Your task to perform on an android device: Open the web browser Image 0: 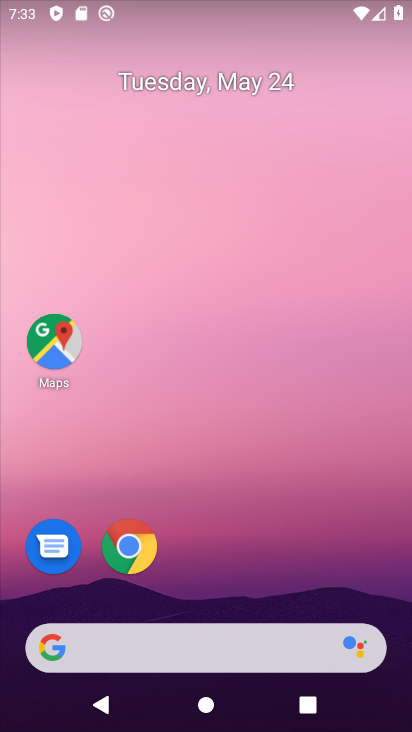
Step 0: click (119, 552)
Your task to perform on an android device: Open the web browser Image 1: 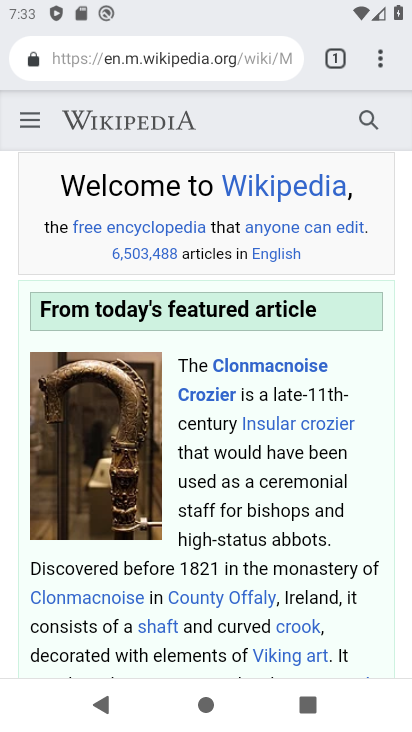
Step 1: click (377, 53)
Your task to perform on an android device: Open the web browser Image 2: 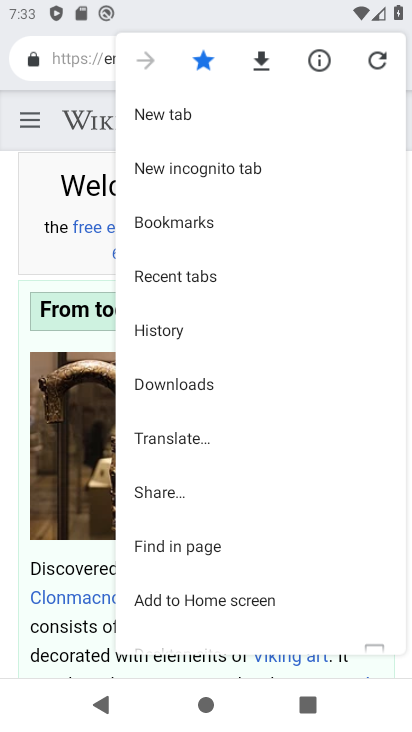
Step 2: click (306, 103)
Your task to perform on an android device: Open the web browser Image 3: 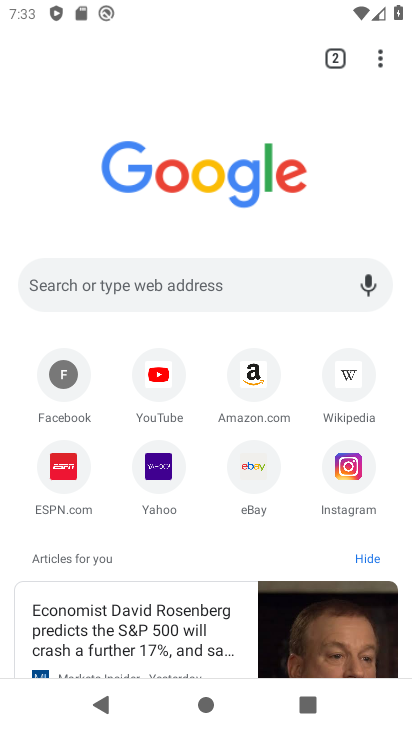
Step 3: task complete